Your task to perform on an android device: Go to network settings Image 0: 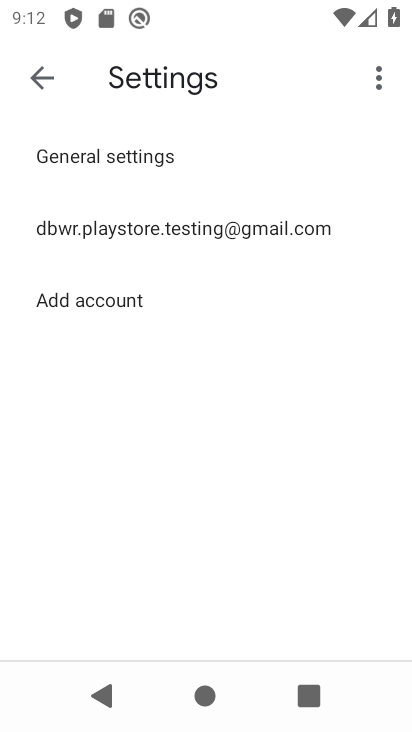
Step 0: press home button
Your task to perform on an android device: Go to network settings Image 1: 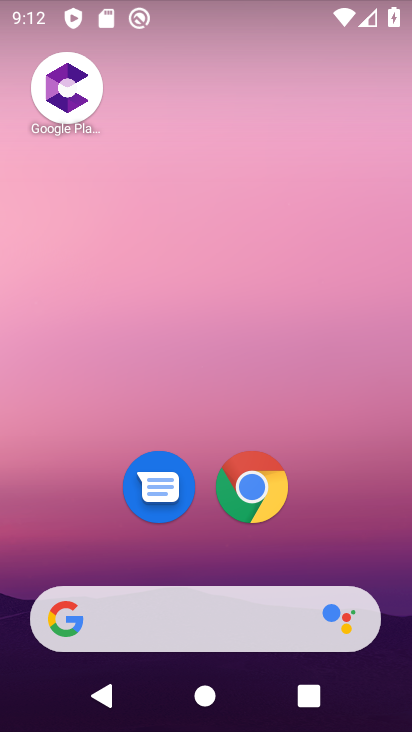
Step 1: drag from (341, 496) to (281, 4)
Your task to perform on an android device: Go to network settings Image 2: 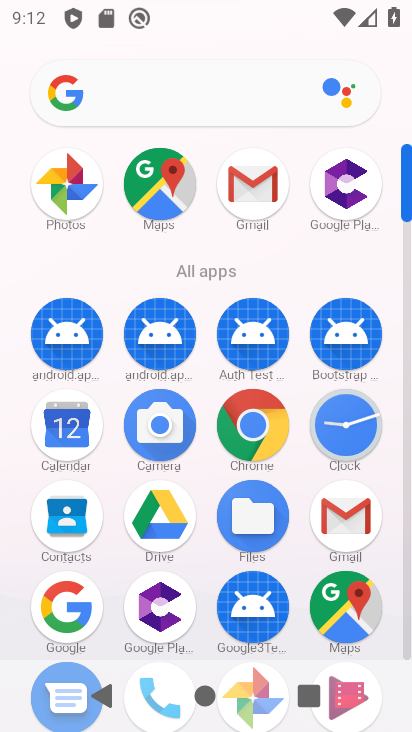
Step 2: drag from (209, 625) to (217, 233)
Your task to perform on an android device: Go to network settings Image 3: 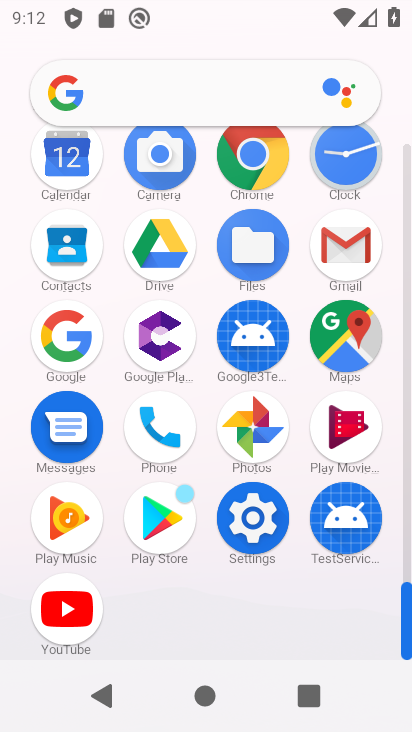
Step 3: click (256, 523)
Your task to perform on an android device: Go to network settings Image 4: 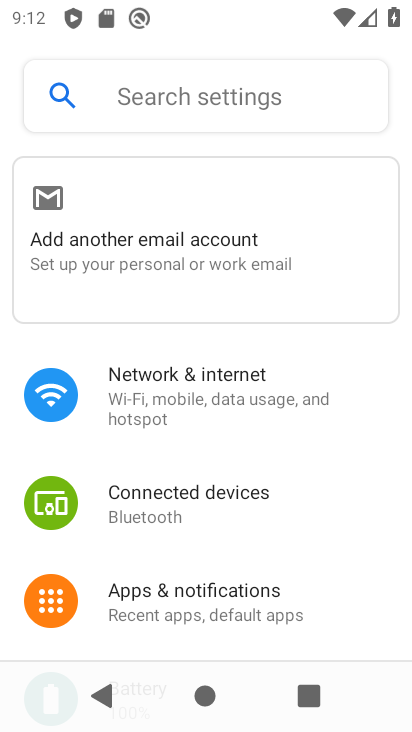
Step 4: click (190, 395)
Your task to perform on an android device: Go to network settings Image 5: 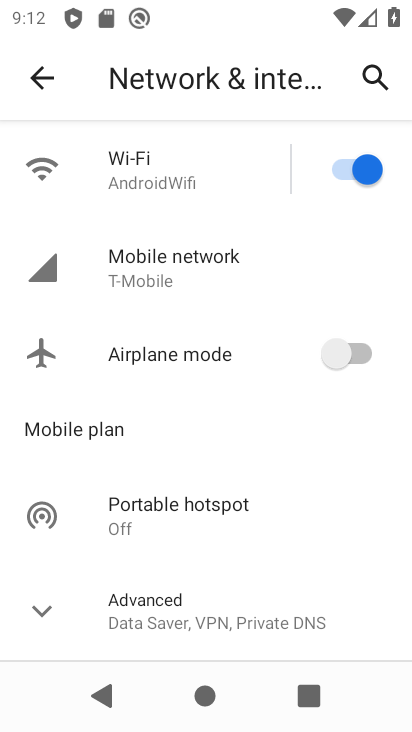
Step 5: task complete